Your task to perform on an android device: empty trash in the gmail app Image 0: 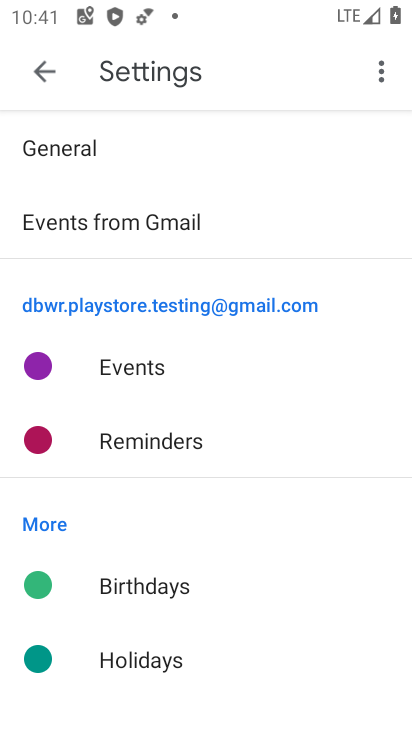
Step 0: press home button
Your task to perform on an android device: empty trash in the gmail app Image 1: 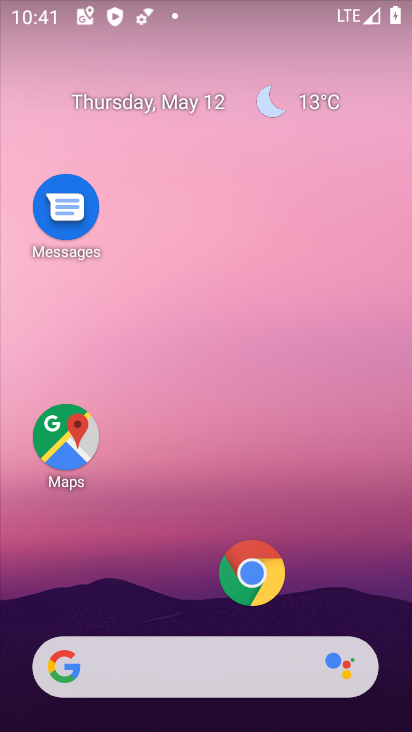
Step 1: drag from (203, 628) to (197, 3)
Your task to perform on an android device: empty trash in the gmail app Image 2: 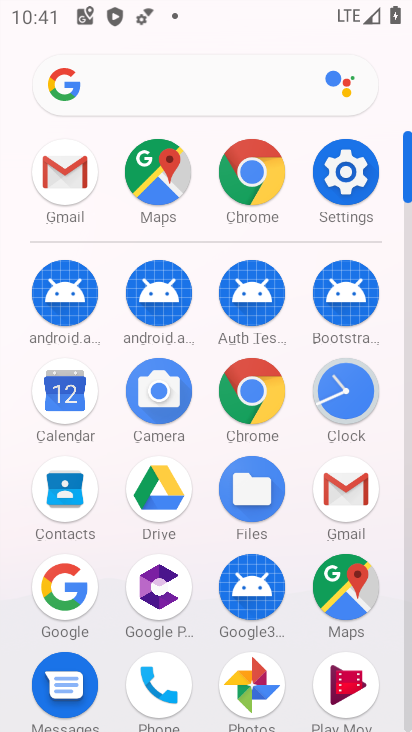
Step 2: click (328, 511)
Your task to perform on an android device: empty trash in the gmail app Image 3: 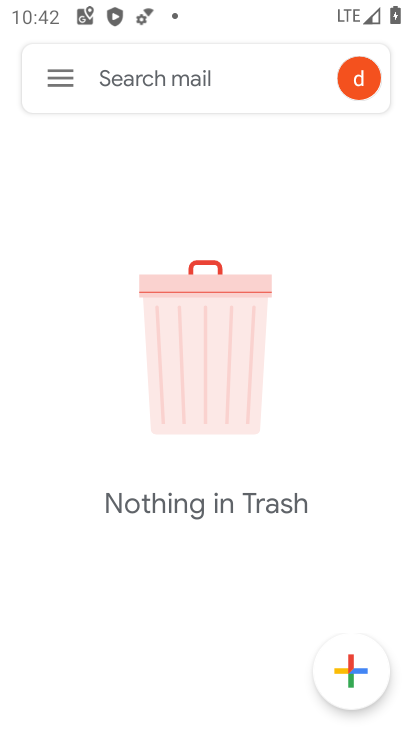
Step 3: task complete